Your task to perform on an android device: Open my contact list Image 0: 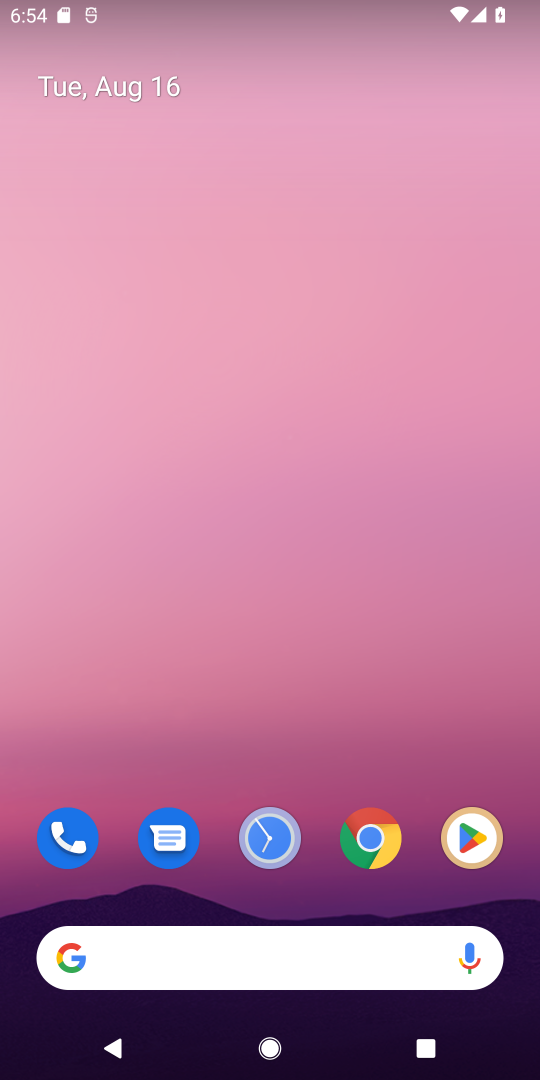
Step 0: press home button
Your task to perform on an android device: Open my contact list Image 1: 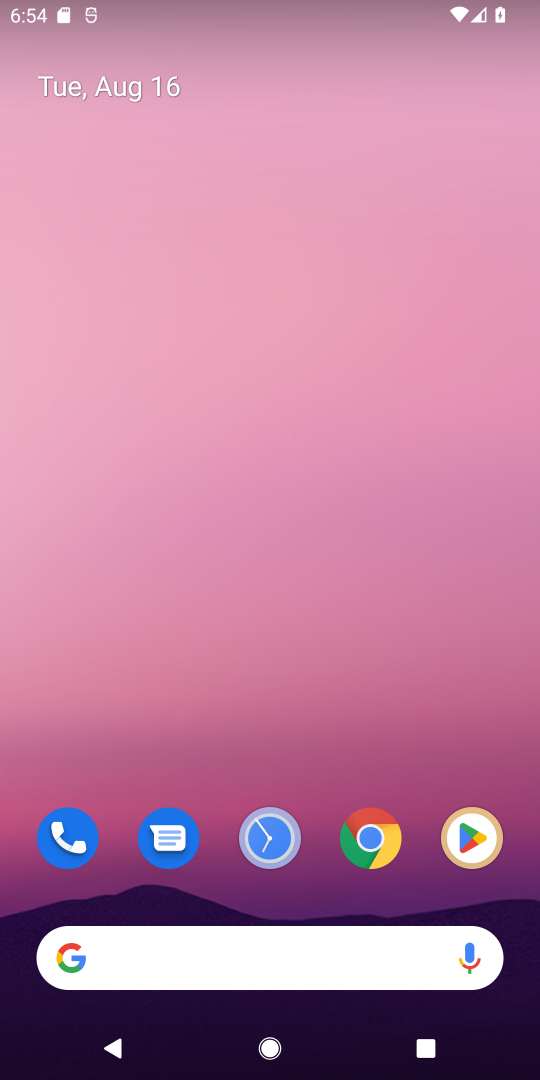
Step 1: drag from (332, 896) to (347, 58)
Your task to perform on an android device: Open my contact list Image 2: 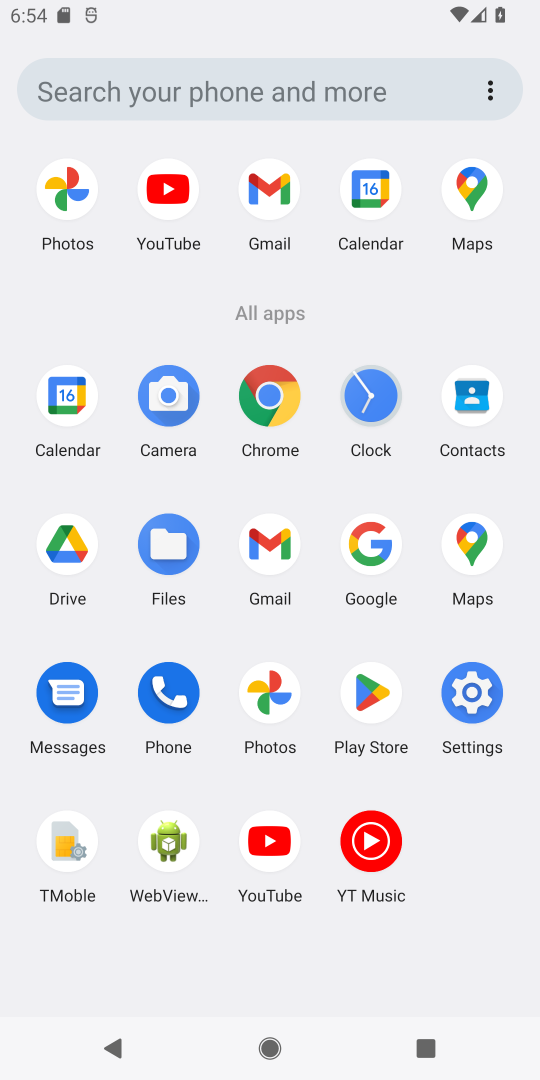
Step 2: click (469, 389)
Your task to perform on an android device: Open my contact list Image 3: 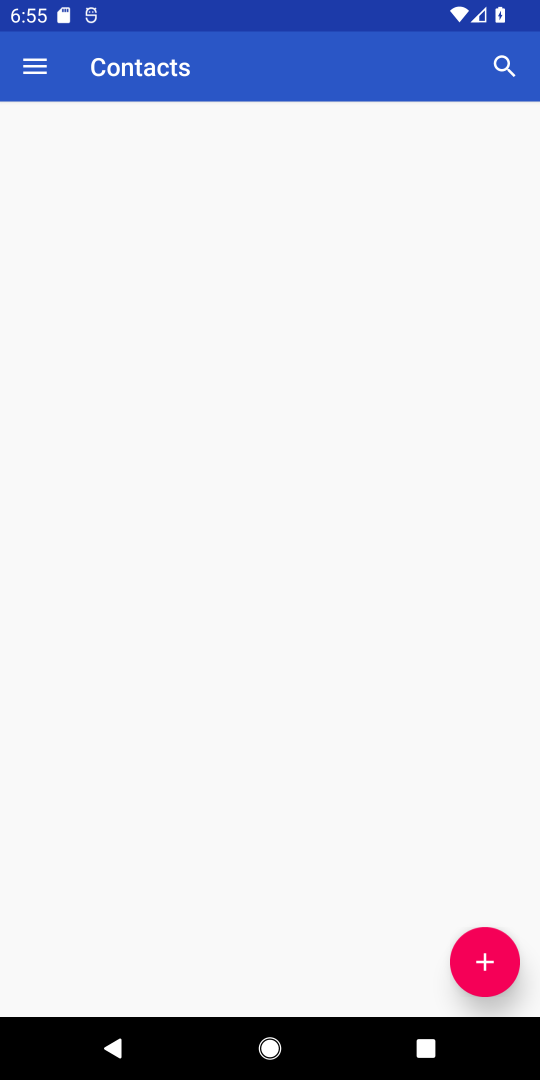
Step 3: task complete